Your task to perform on an android device: turn off data saver in the chrome app Image 0: 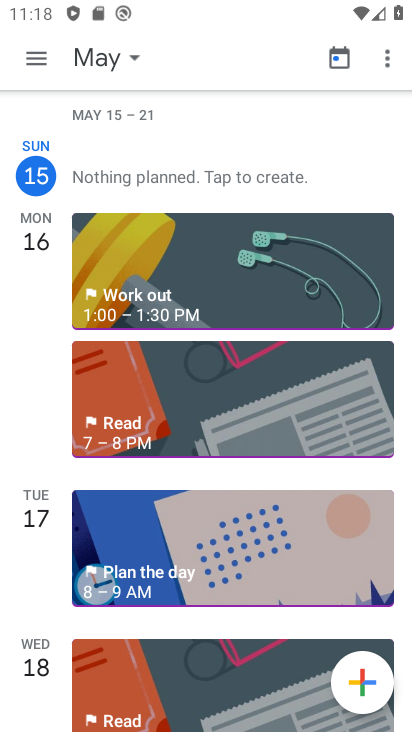
Step 0: press home button
Your task to perform on an android device: turn off data saver in the chrome app Image 1: 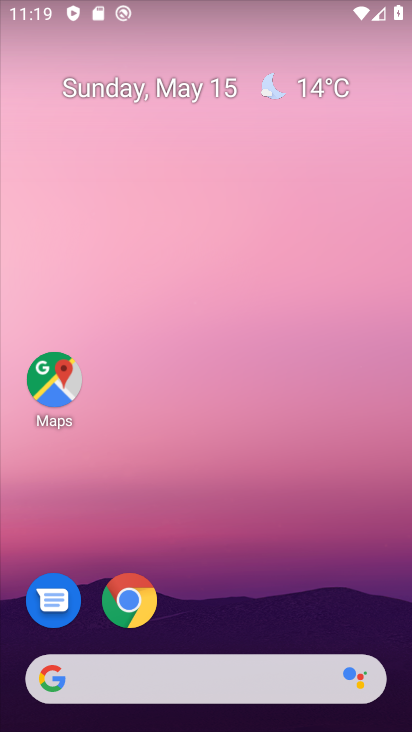
Step 1: click (131, 598)
Your task to perform on an android device: turn off data saver in the chrome app Image 2: 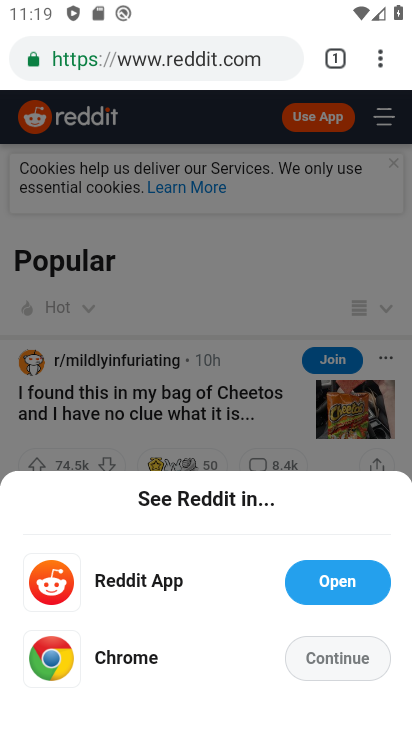
Step 2: click (378, 60)
Your task to perform on an android device: turn off data saver in the chrome app Image 3: 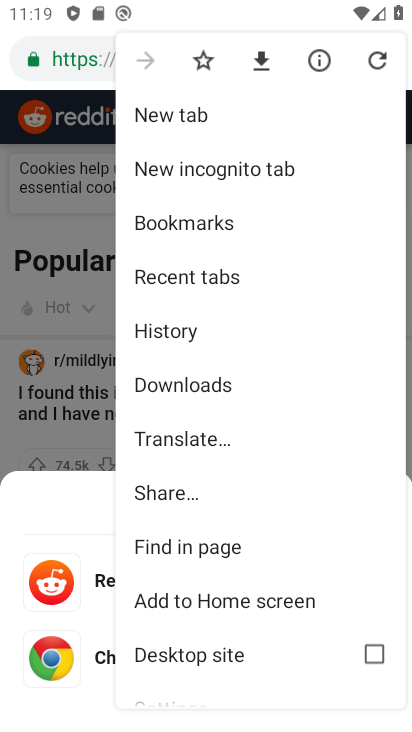
Step 3: drag from (303, 637) to (307, 159)
Your task to perform on an android device: turn off data saver in the chrome app Image 4: 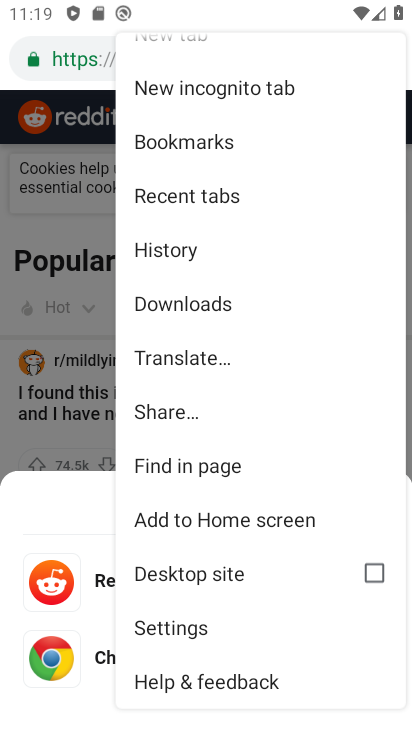
Step 4: click (175, 624)
Your task to perform on an android device: turn off data saver in the chrome app Image 5: 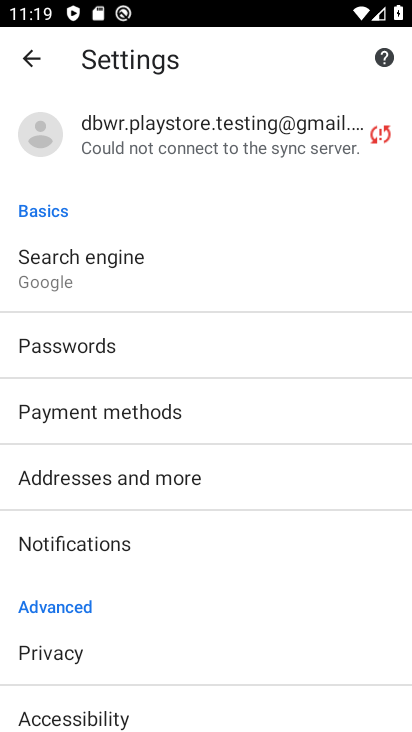
Step 5: drag from (212, 665) to (255, 139)
Your task to perform on an android device: turn off data saver in the chrome app Image 6: 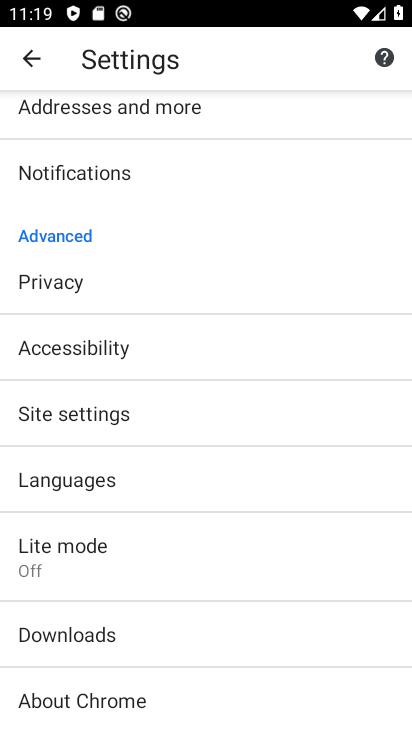
Step 6: click (48, 554)
Your task to perform on an android device: turn off data saver in the chrome app Image 7: 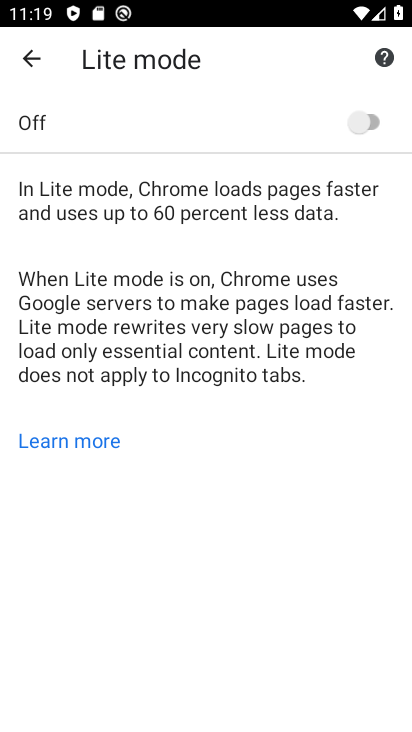
Step 7: task complete